Your task to perform on an android device: How do I get to the nearest Best Buy? Image 0: 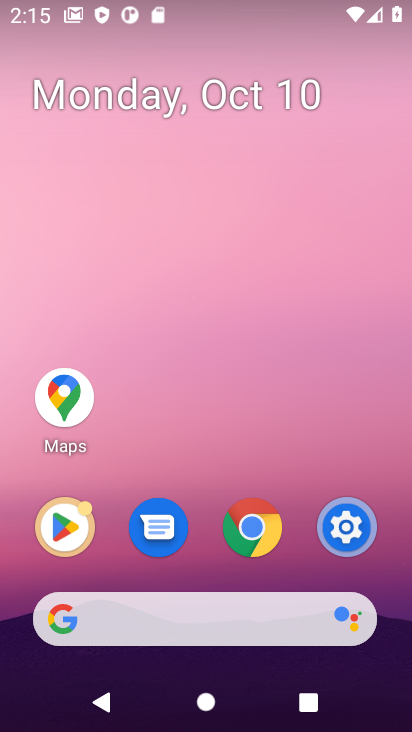
Step 0: click (217, 618)
Your task to perform on an android device: How do I get to the nearest Best Buy? Image 1: 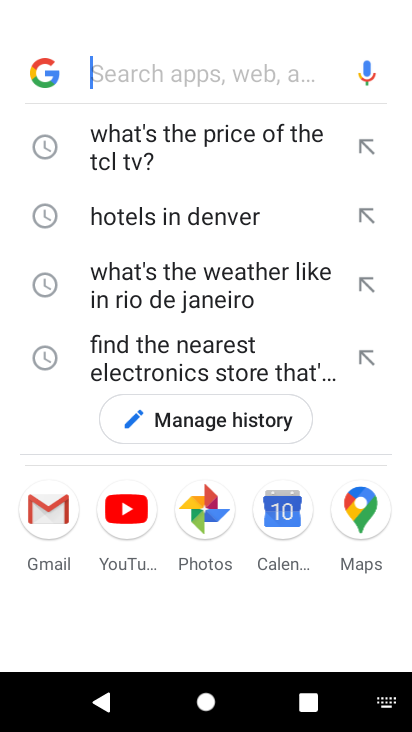
Step 1: type "How do I get to the nearest Best Buy"
Your task to perform on an android device: How do I get to the nearest Best Buy? Image 2: 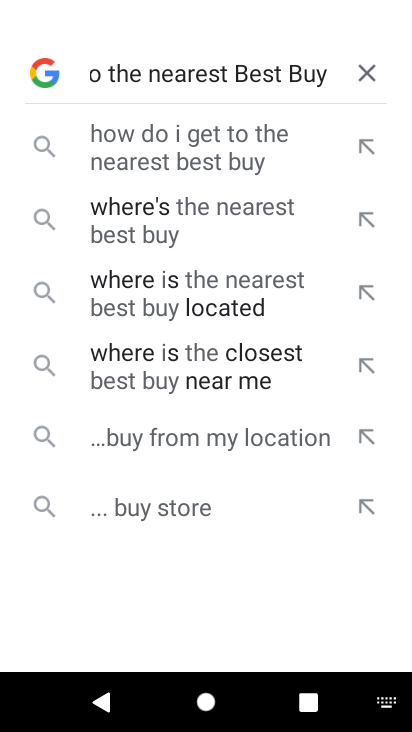
Step 2: press enter
Your task to perform on an android device: How do I get to the nearest Best Buy? Image 3: 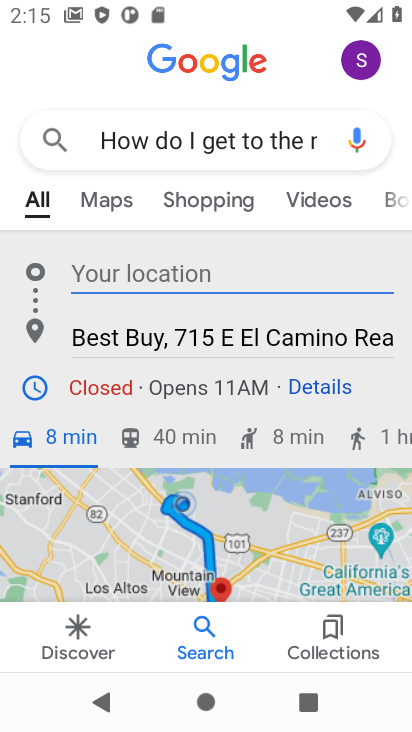
Step 3: task complete